Your task to perform on an android device: Show me productivity apps on the Play Store Image 0: 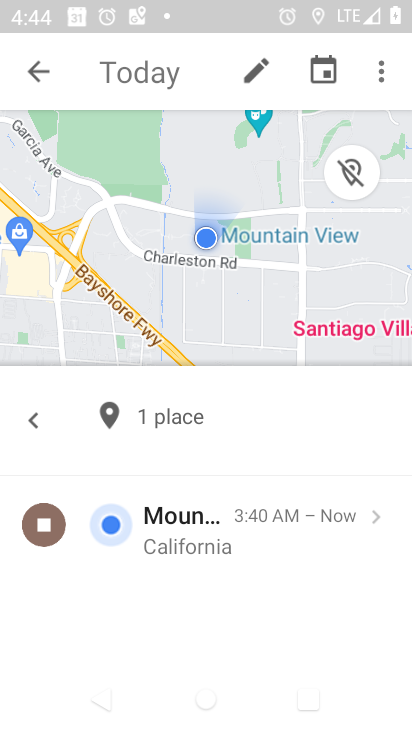
Step 0: press back button
Your task to perform on an android device: Show me productivity apps on the Play Store Image 1: 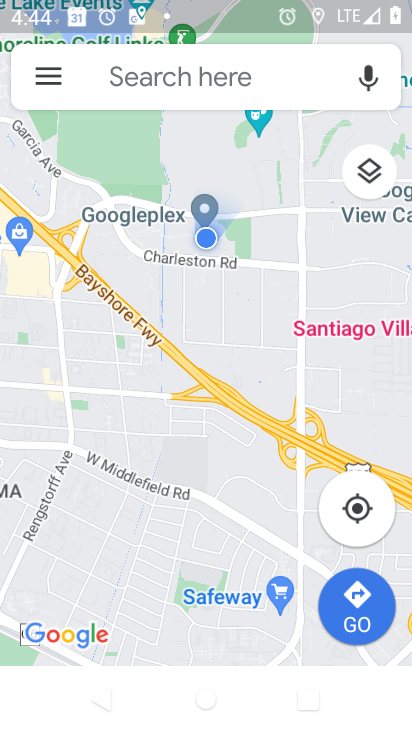
Step 1: press home button
Your task to perform on an android device: Show me productivity apps on the Play Store Image 2: 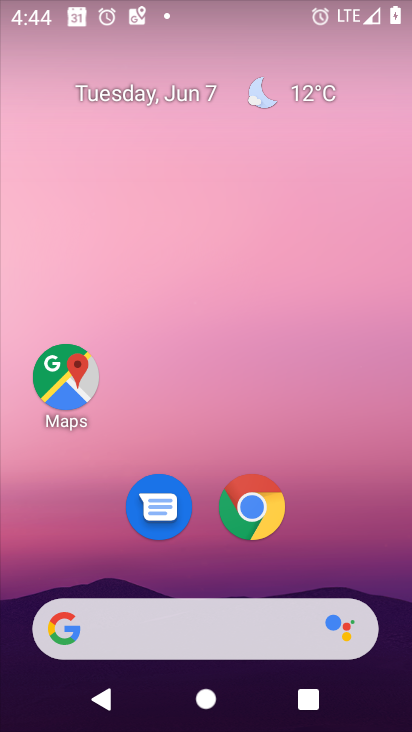
Step 2: drag from (328, 565) to (281, 20)
Your task to perform on an android device: Show me productivity apps on the Play Store Image 3: 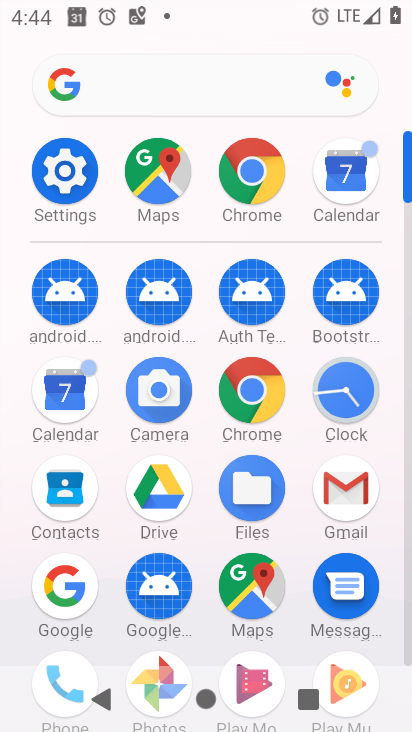
Step 3: drag from (16, 562) to (21, 245)
Your task to perform on an android device: Show me productivity apps on the Play Store Image 4: 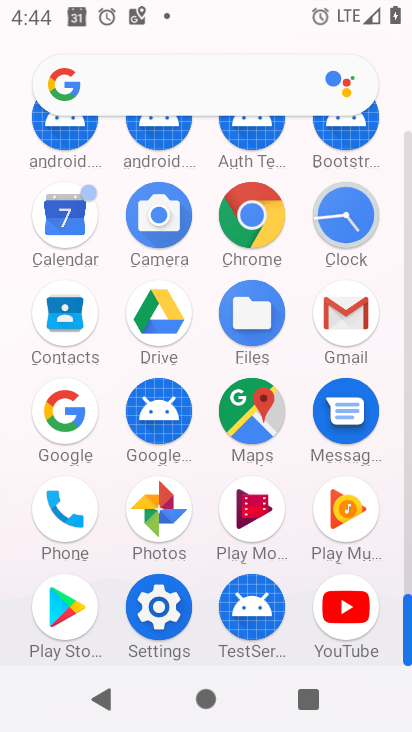
Step 4: click (69, 605)
Your task to perform on an android device: Show me productivity apps on the Play Store Image 5: 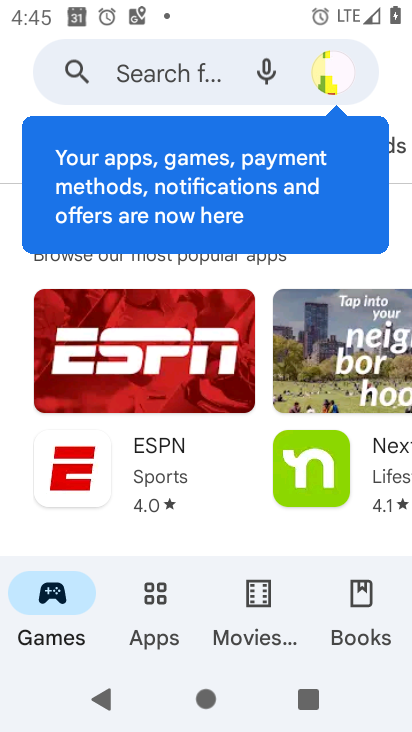
Step 5: click (149, 591)
Your task to perform on an android device: Show me productivity apps on the Play Store Image 6: 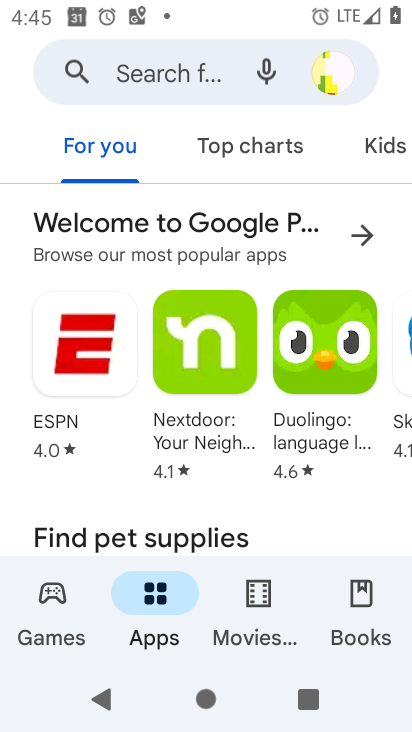
Step 6: drag from (351, 132) to (97, 149)
Your task to perform on an android device: Show me productivity apps on the Play Store Image 7: 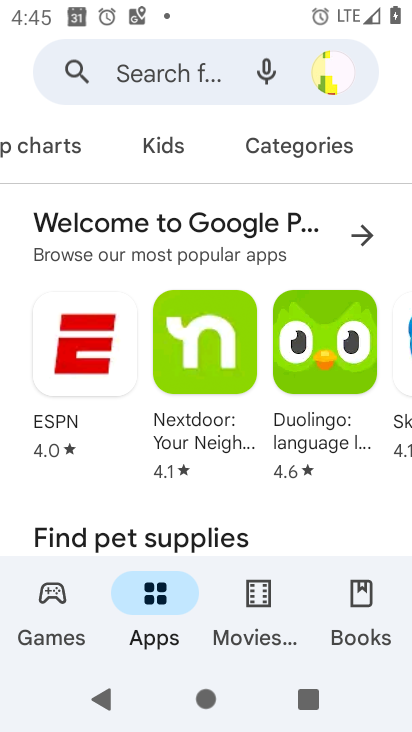
Step 7: click (296, 146)
Your task to perform on an android device: Show me productivity apps on the Play Store Image 8: 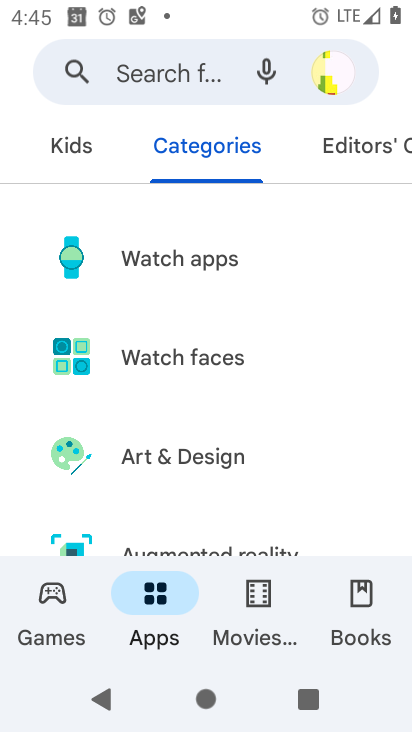
Step 8: drag from (271, 478) to (278, 161)
Your task to perform on an android device: Show me productivity apps on the Play Store Image 9: 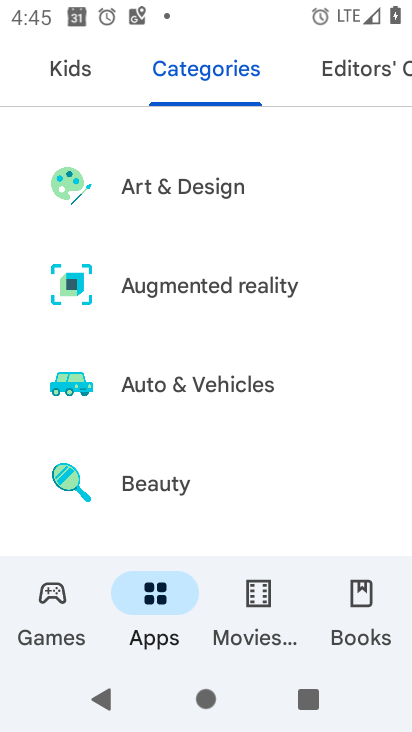
Step 9: drag from (265, 503) to (283, 135)
Your task to perform on an android device: Show me productivity apps on the Play Store Image 10: 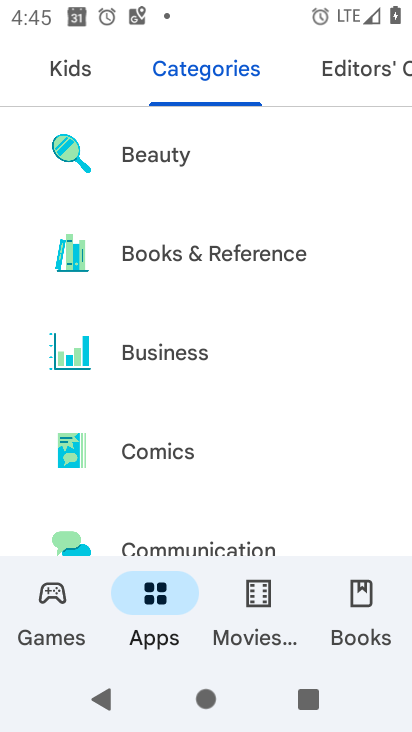
Step 10: drag from (283, 471) to (317, 152)
Your task to perform on an android device: Show me productivity apps on the Play Store Image 11: 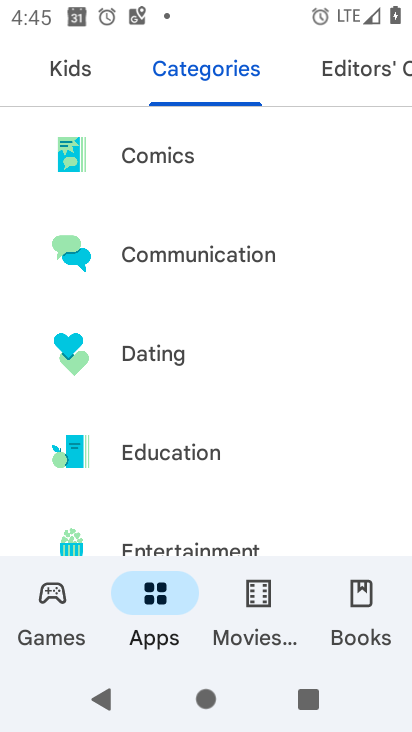
Step 11: drag from (277, 470) to (281, 133)
Your task to perform on an android device: Show me productivity apps on the Play Store Image 12: 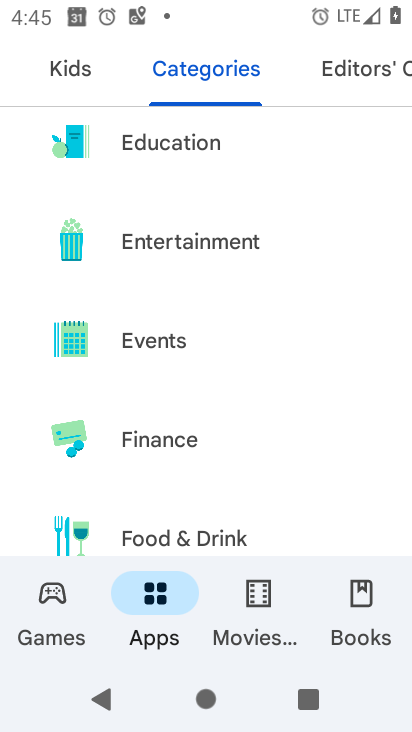
Step 12: drag from (281, 494) to (299, 141)
Your task to perform on an android device: Show me productivity apps on the Play Store Image 13: 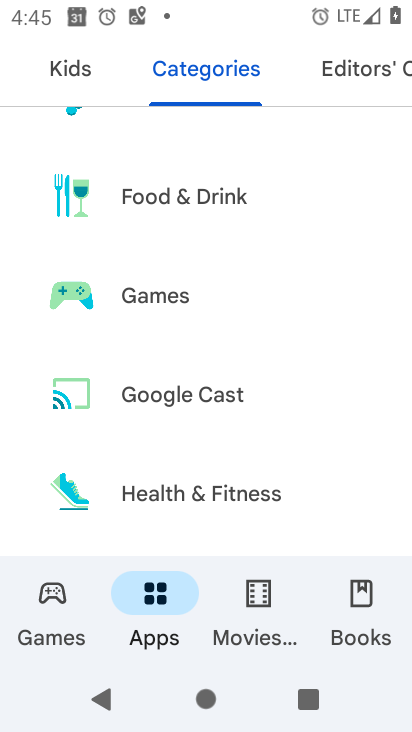
Step 13: drag from (300, 482) to (304, 187)
Your task to perform on an android device: Show me productivity apps on the Play Store Image 14: 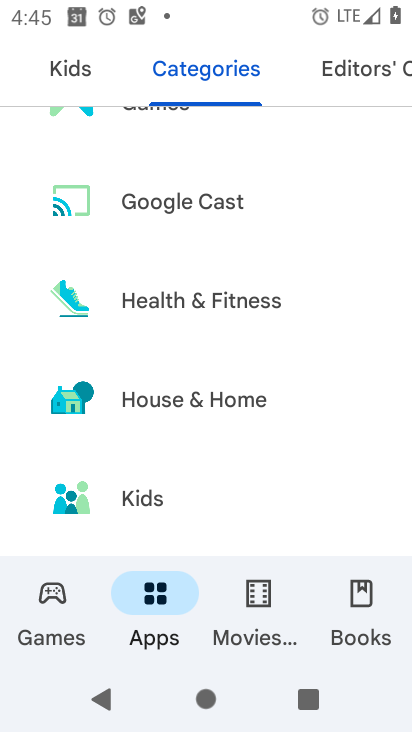
Step 14: drag from (259, 504) to (290, 197)
Your task to perform on an android device: Show me productivity apps on the Play Store Image 15: 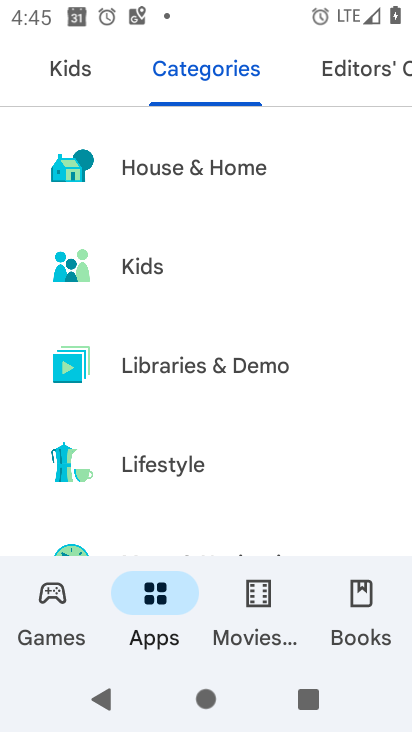
Step 15: drag from (242, 529) to (246, 176)
Your task to perform on an android device: Show me productivity apps on the Play Store Image 16: 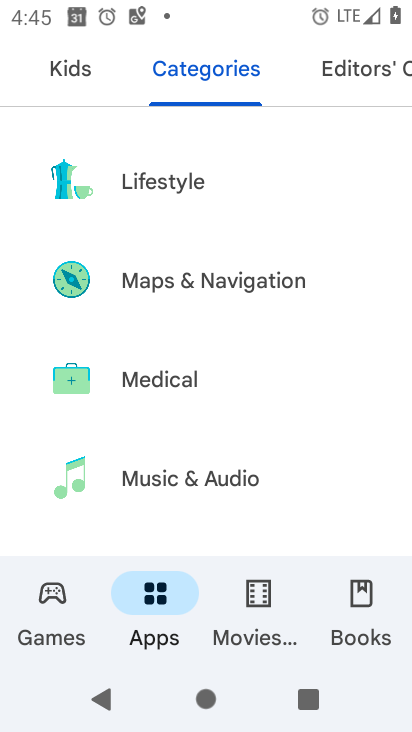
Step 16: drag from (238, 461) to (265, 136)
Your task to perform on an android device: Show me productivity apps on the Play Store Image 17: 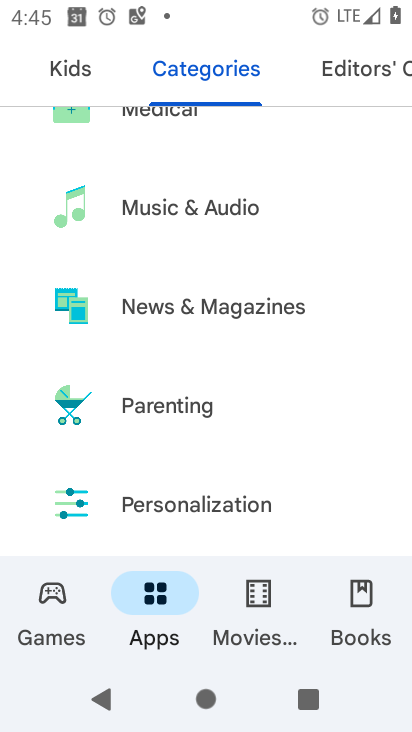
Step 17: drag from (247, 438) to (241, 150)
Your task to perform on an android device: Show me productivity apps on the Play Store Image 18: 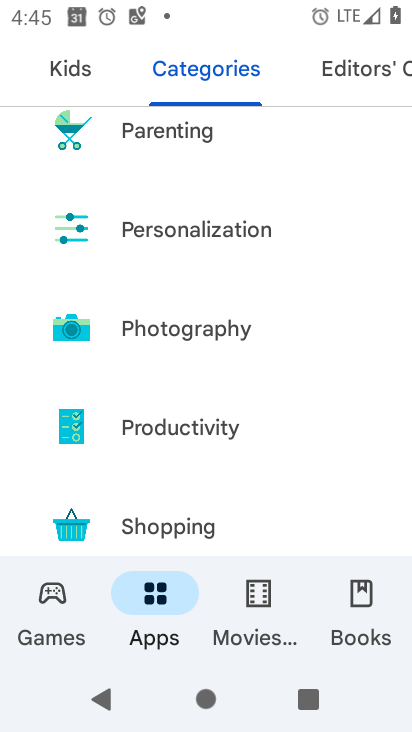
Step 18: click (170, 413)
Your task to perform on an android device: Show me productivity apps on the Play Store Image 19: 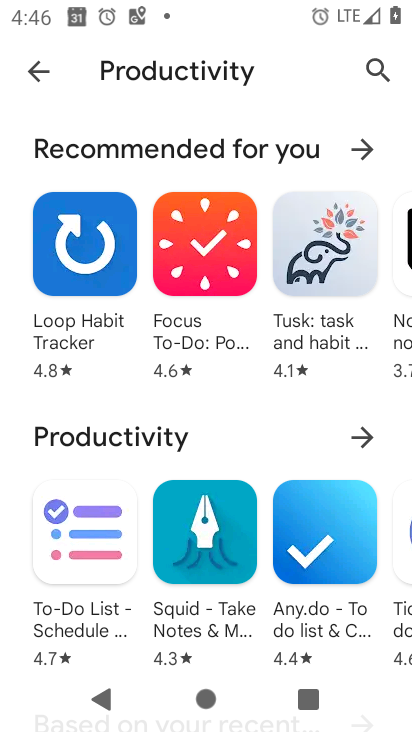
Step 19: task complete